Your task to perform on an android device: Open Yahoo.com Image 0: 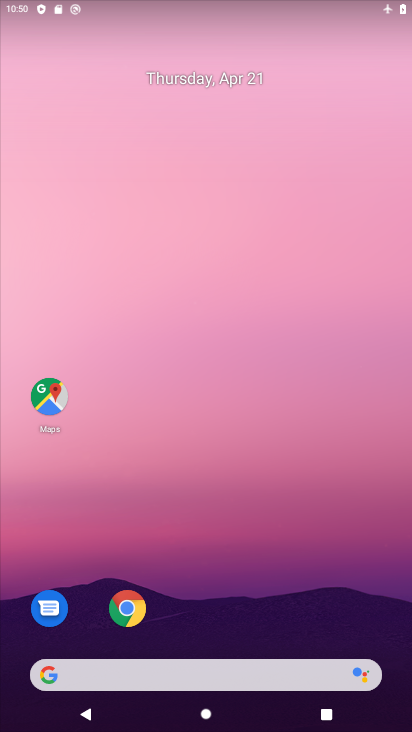
Step 0: click (130, 608)
Your task to perform on an android device: Open Yahoo.com Image 1: 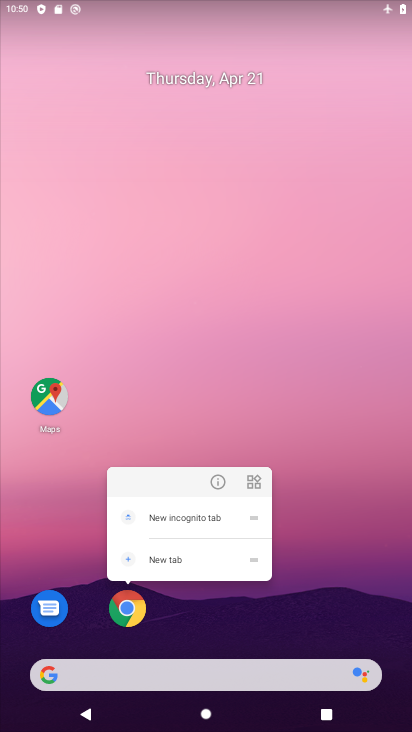
Step 1: click (210, 482)
Your task to perform on an android device: Open Yahoo.com Image 2: 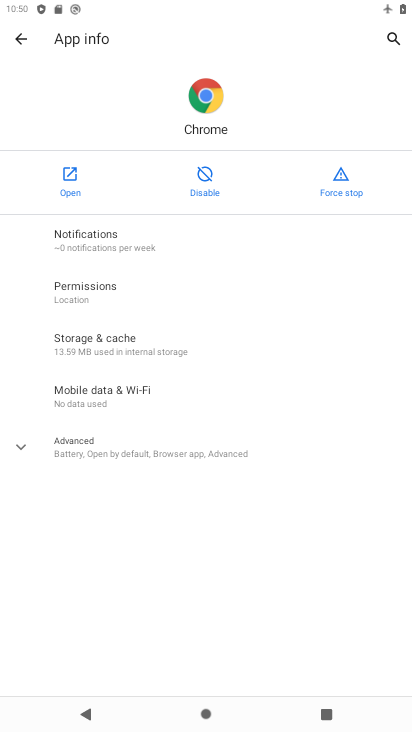
Step 2: click (71, 184)
Your task to perform on an android device: Open Yahoo.com Image 3: 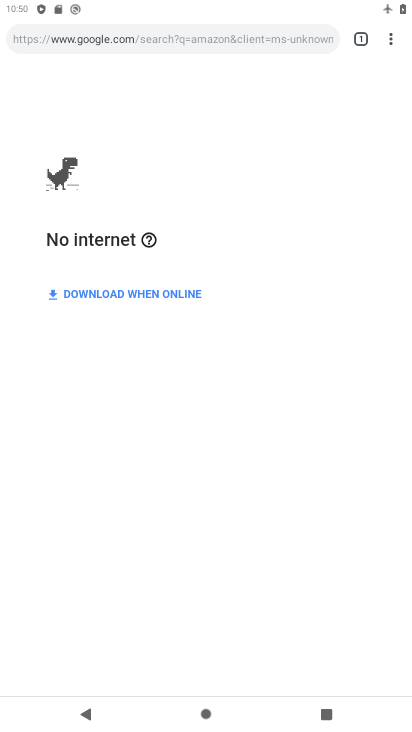
Step 3: task complete